Your task to perform on an android device: turn on the 24-hour format for clock Image 0: 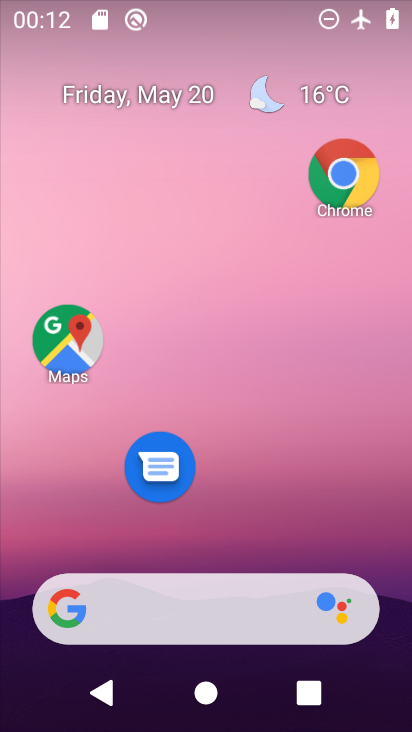
Step 0: drag from (263, 420) to (283, 214)
Your task to perform on an android device: turn on the 24-hour format for clock Image 1: 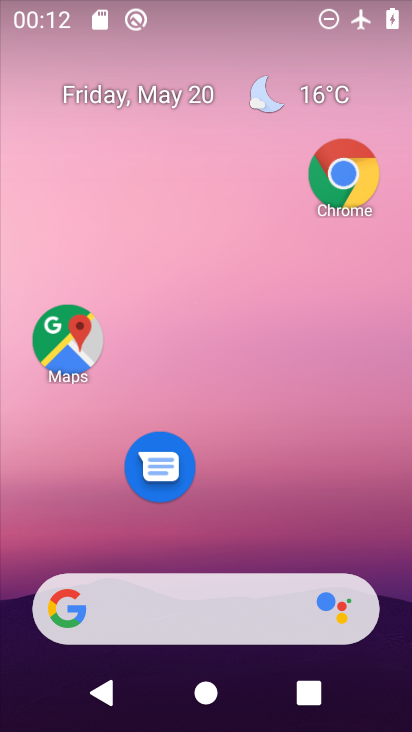
Step 1: drag from (224, 505) to (231, 190)
Your task to perform on an android device: turn on the 24-hour format for clock Image 2: 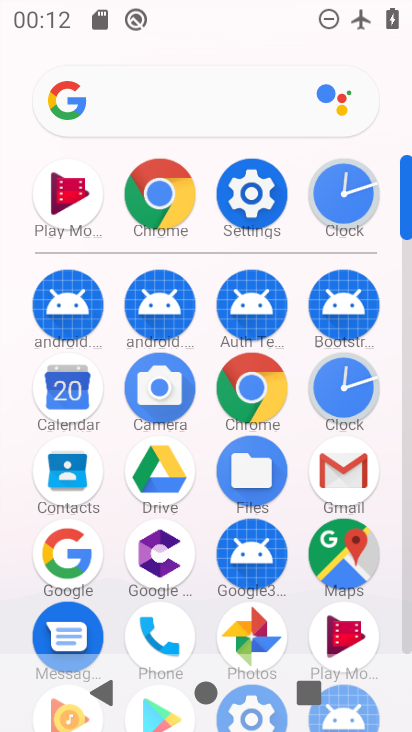
Step 2: click (357, 373)
Your task to perform on an android device: turn on the 24-hour format for clock Image 3: 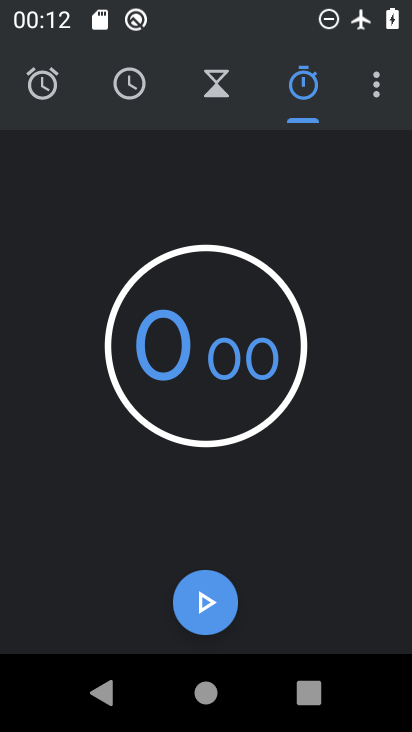
Step 3: click (369, 93)
Your task to perform on an android device: turn on the 24-hour format for clock Image 4: 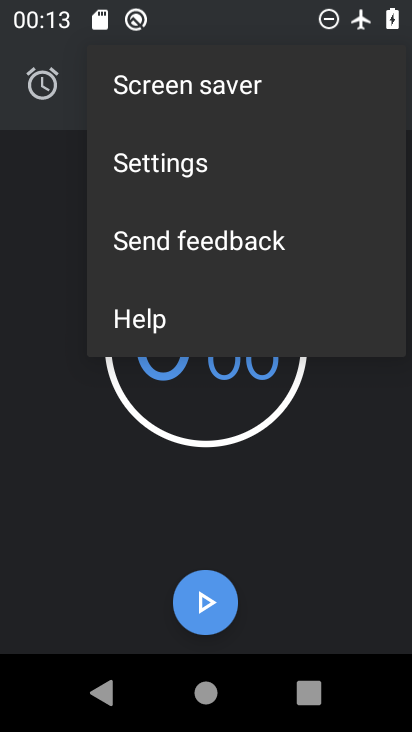
Step 4: click (215, 167)
Your task to perform on an android device: turn on the 24-hour format for clock Image 5: 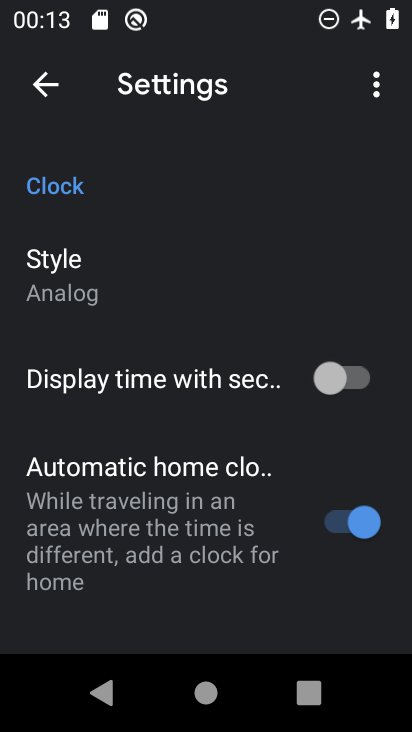
Step 5: drag from (166, 498) to (187, 169)
Your task to perform on an android device: turn on the 24-hour format for clock Image 6: 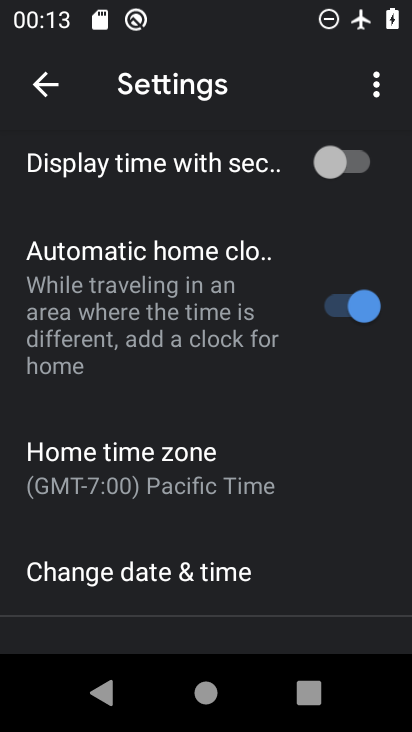
Step 6: drag from (141, 492) to (161, 275)
Your task to perform on an android device: turn on the 24-hour format for clock Image 7: 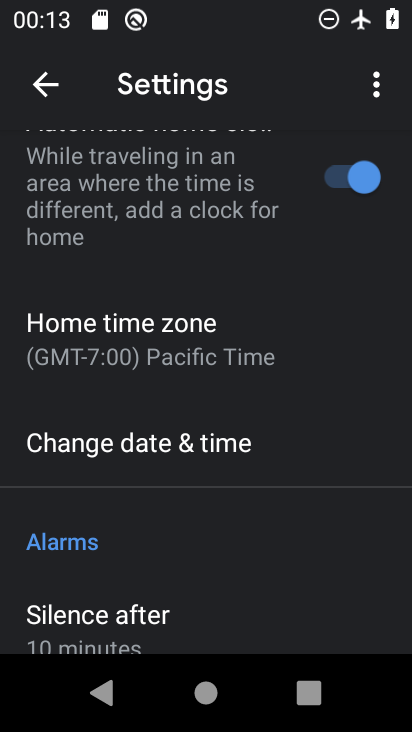
Step 7: click (178, 441)
Your task to perform on an android device: turn on the 24-hour format for clock Image 8: 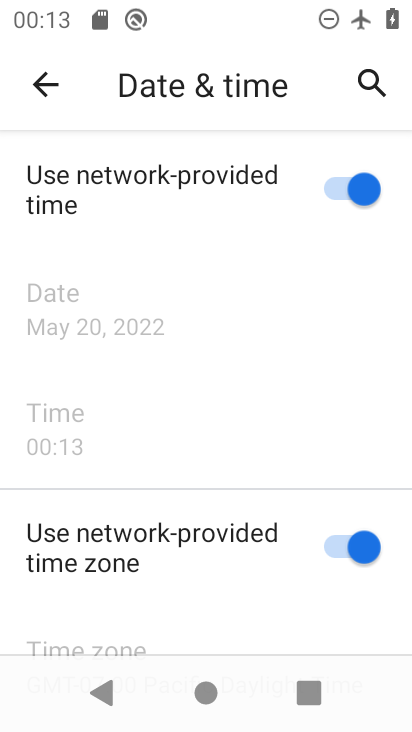
Step 8: task complete